Your task to perform on an android device: Show me productivity apps on the Play Store Image 0: 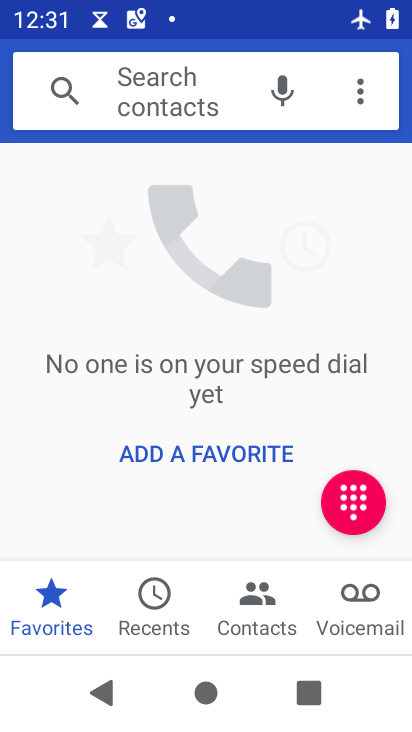
Step 0: press home button
Your task to perform on an android device: Show me productivity apps on the Play Store Image 1: 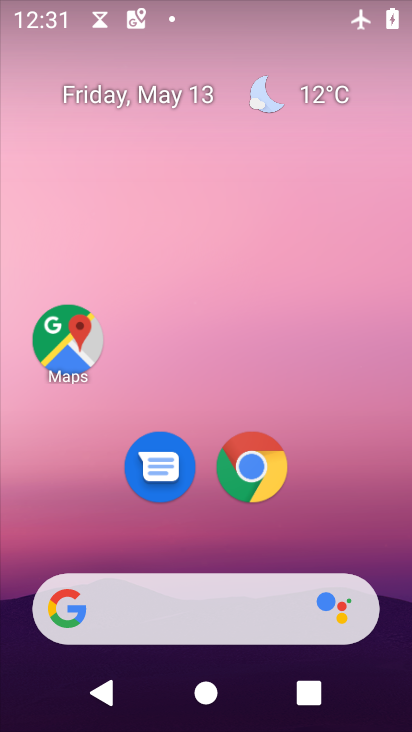
Step 1: drag from (327, 471) to (240, 9)
Your task to perform on an android device: Show me productivity apps on the Play Store Image 2: 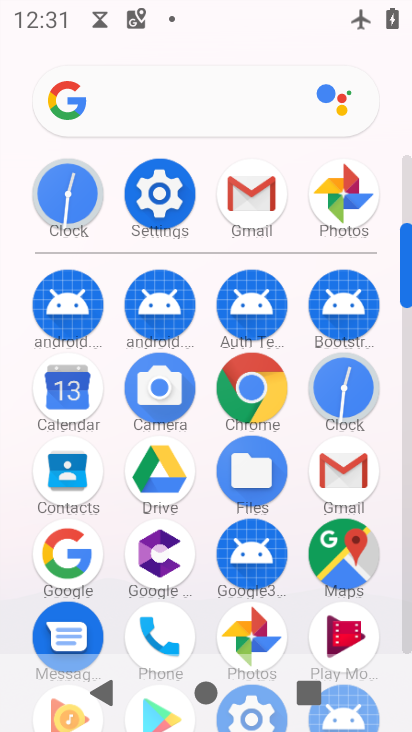
Step 2: drag from (210, 629) to (197, 228)
Your task to perform on an android device: Show me productivity apps on the Play Store Image 3: 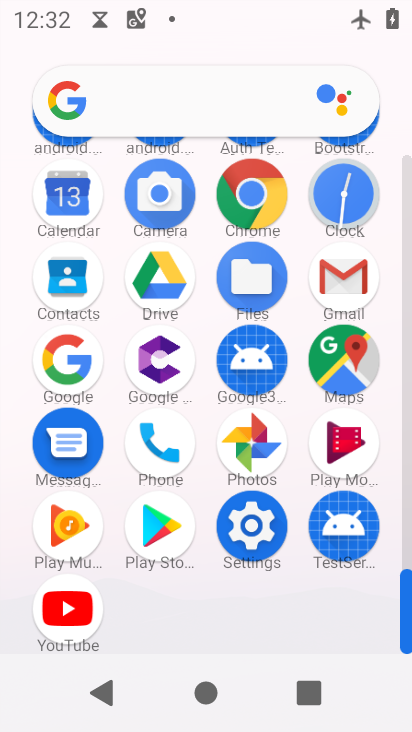
Step 3: click (179, 511)
Your task to perform on an android device: Show me productivity apps on the Play Store Image 4: 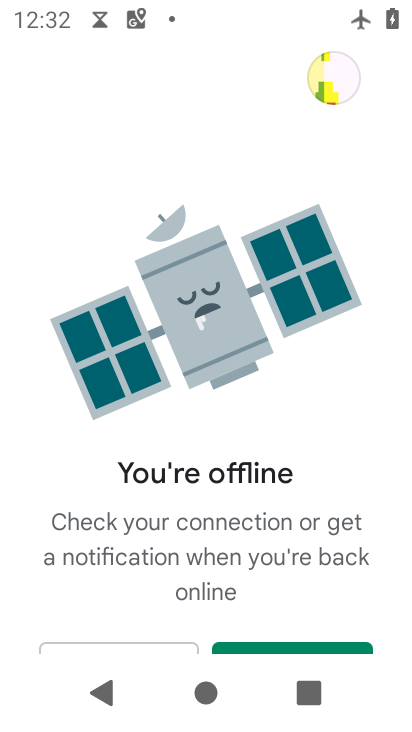
Step 4: press home button
Your task to perform on an android device: Show me productivity apps on the Play Store Image 5: 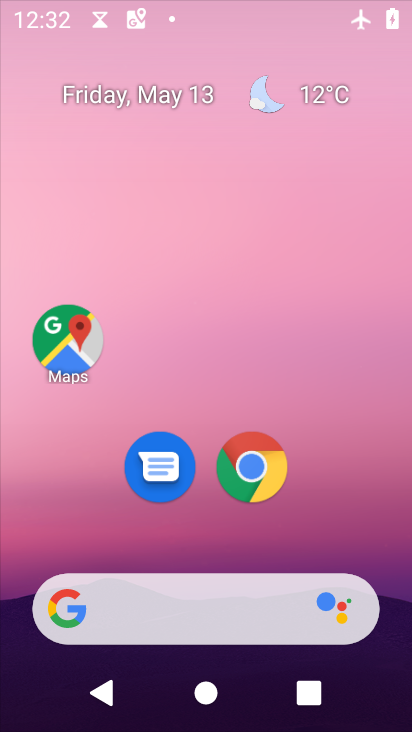
Step 5: drag from (315, 470) to (247, 89)
Your task to perform on an android device: Show me productivity apps on the Play Store Image 6: 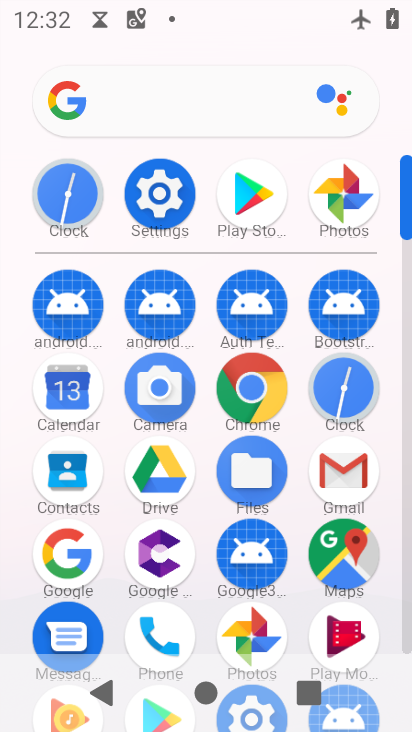
Step 6: click (154, 195)
Your task to perform on an android device: Show me productivity apps on the Play Store Image 7: 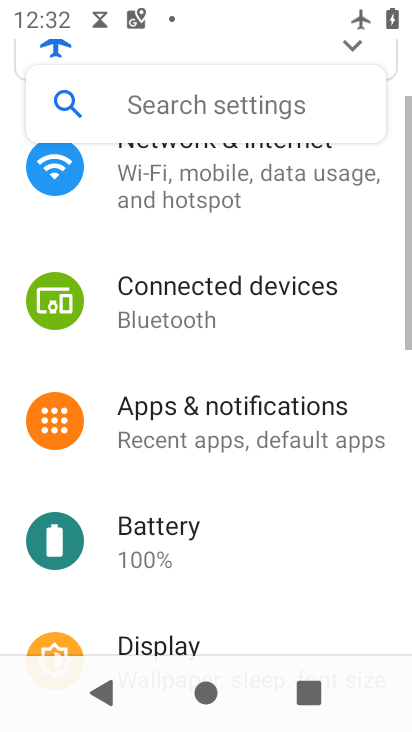
Step 7: click (209, 211)
Your task to perform on an android device: Show me productivity apps on the Play Store Image 8: 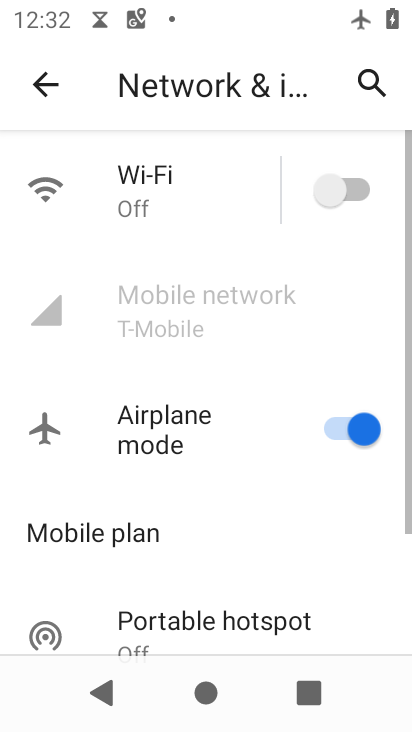
Step 8: click (345, 186)
Your task to perform on an android device: Show me productivity apps on the Play Store Image 9: 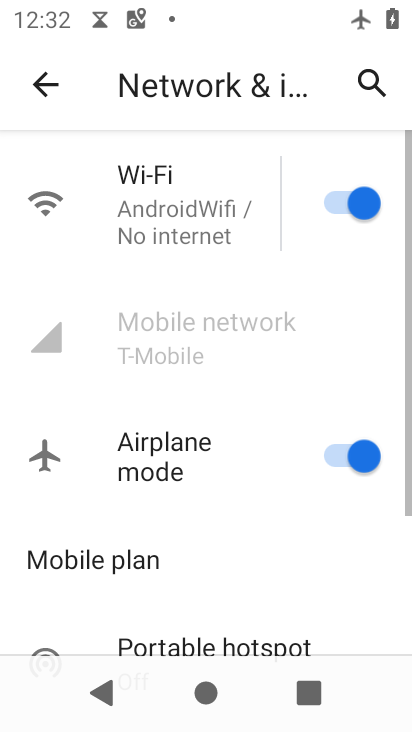
Step 9: press home button
Your task to perform on an android device: Show me productivity apps on the Play Store Image 10: 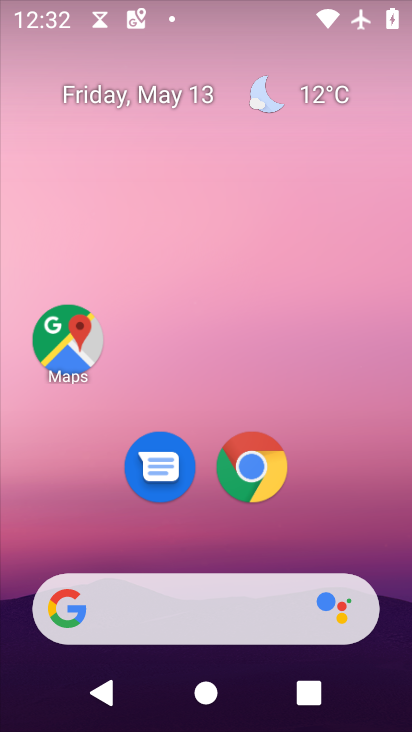
Step 10: drag from (359, 519) to (245, 46)
Your task to perform on an android device: Show me productivity apps on the Play Store Image 11: 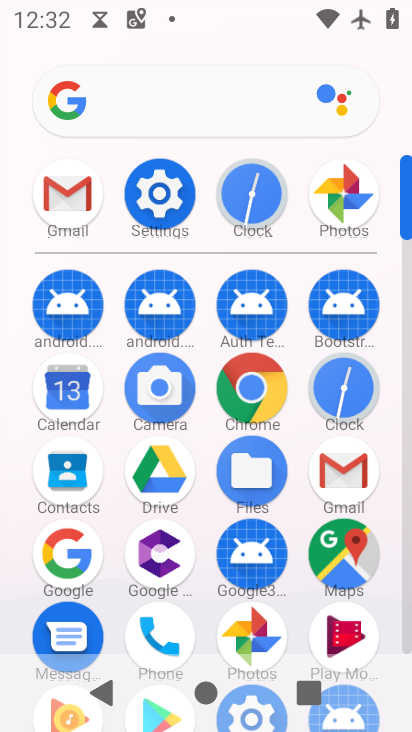
Step 11: drag from (210, 628) to (205, 294)
Your task to perform on an android device: Show me productivity apps on the Play Store Image 12: 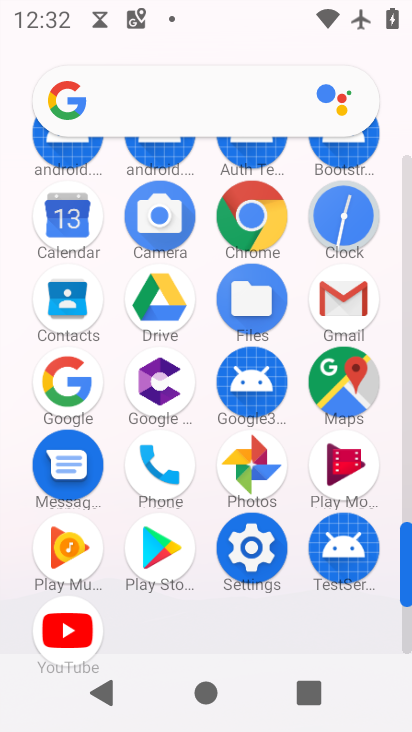
Step 12: click (160, 543)
Your task to perform on an android device: Show me productivity apps on the Play Store Image 13: 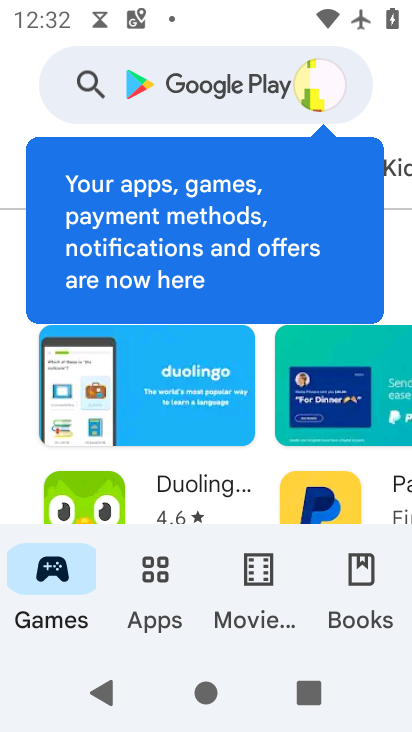
Step 13: click (142, 587)
Your task to perform on an android device: Show me productivity apps on the Play Store Image 14: 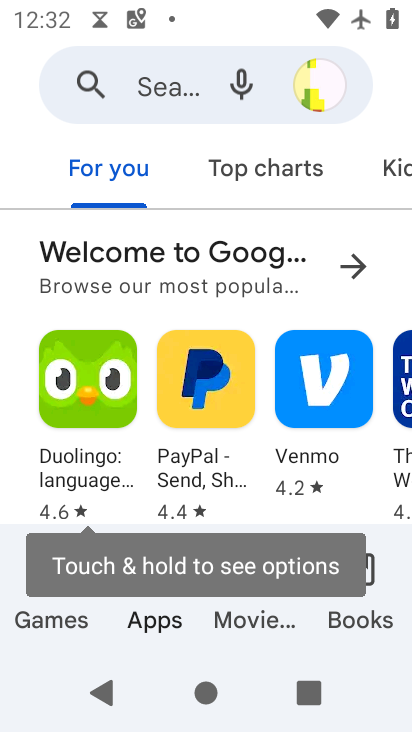
Step 14: click (180, 74)
Your task to perform on an android device: Show me productivity apps on the Play Store Image 15: 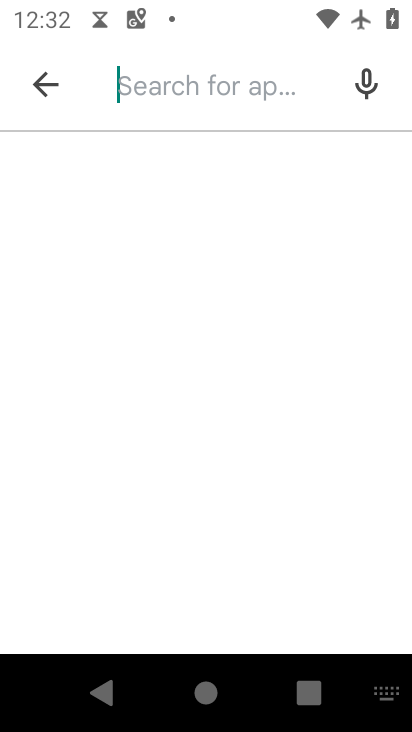
Step 15: type "productivity apps"
Your task to perform on an android device: Show me productivity apps on the Play Store Image 16: 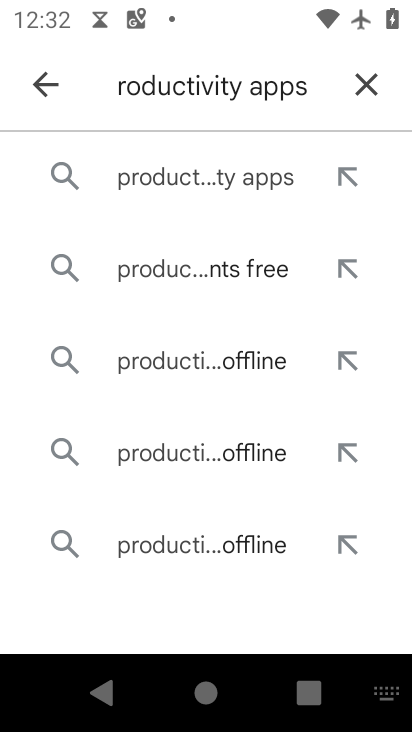
Step 16: click (197, 176)
Your task to perform on an android device: Show me productivity apps on the Play Store Image 17: 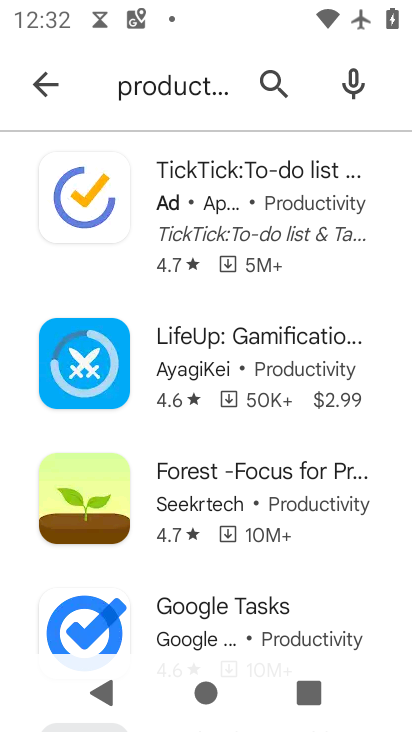
Step 17: task complete